Your task to perform on an android device: Go to privacy settings Image 0: 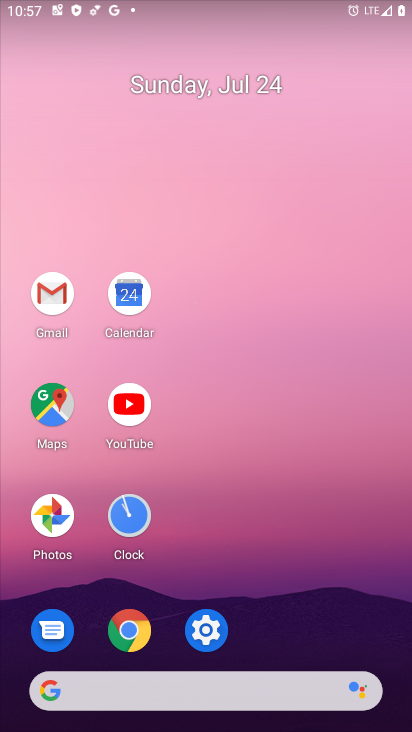
Step 0: click (195, 630)
Your task to perform on an android device: Go to privacy settings Image 1: 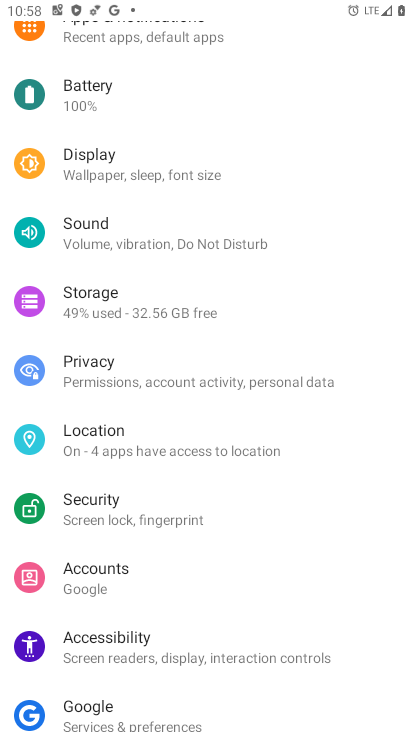
Step 1: click (84, 369)
Your task to perform on an android device: Go to privacy settings Image 2: 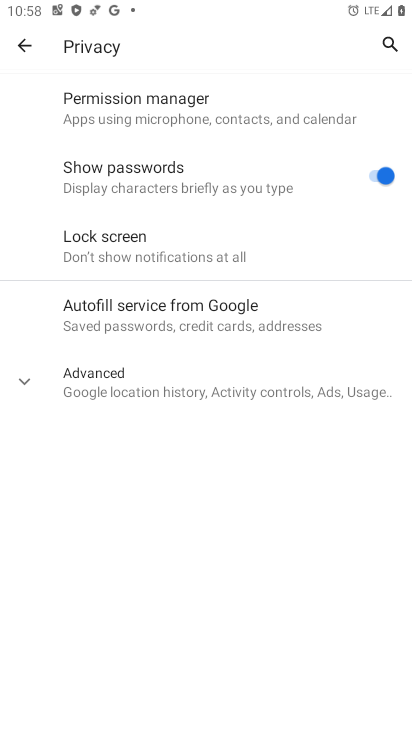
Step 2: task complete